Your task to perform on an android device: Open battery settings Image 0: 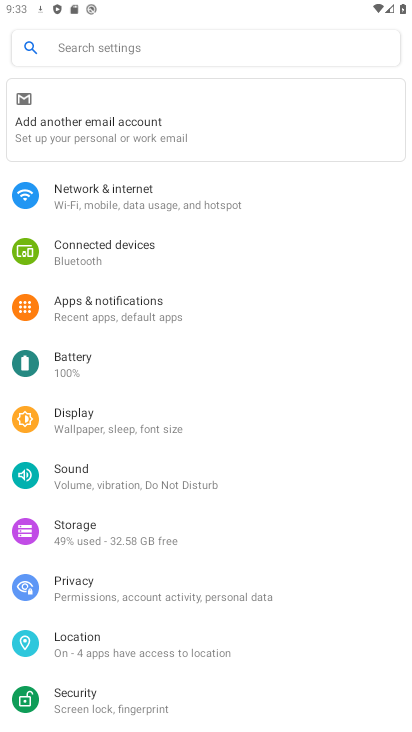
Step 0: press home button
Your task to perform on an android device: Open battery settings Image 1: 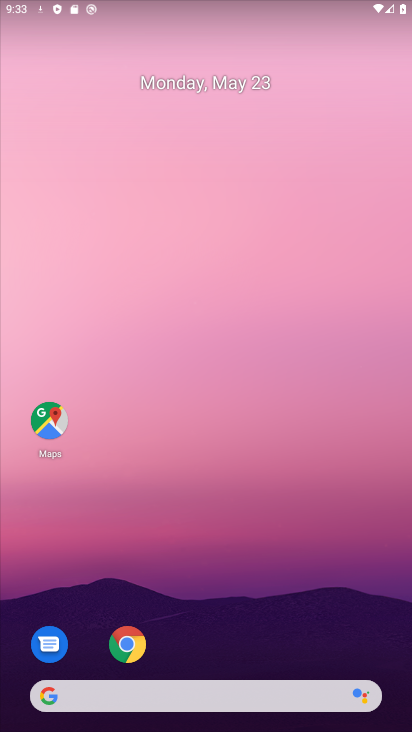
Step 1: drag from (265, 717) to (297, 308)
Your task to perform on an android device: Open battery settings Image 2: 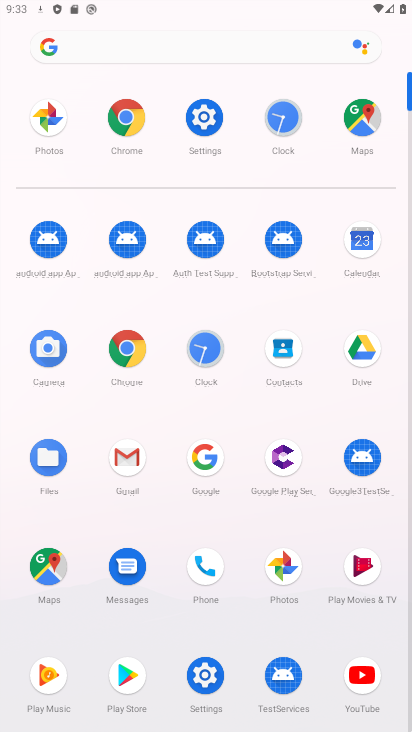
Step 2: click (218, 123)
Your task to perform on an android device: Open battery settings Image 3: 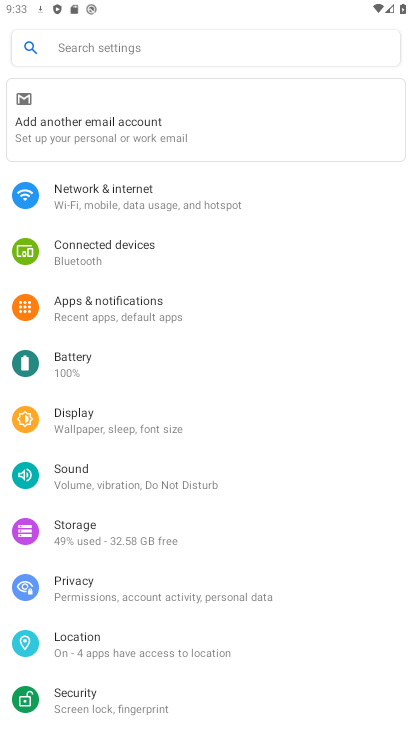
Step 3: click (100, 357)
Your task to perform on an android device: Open battery settings Image 4: 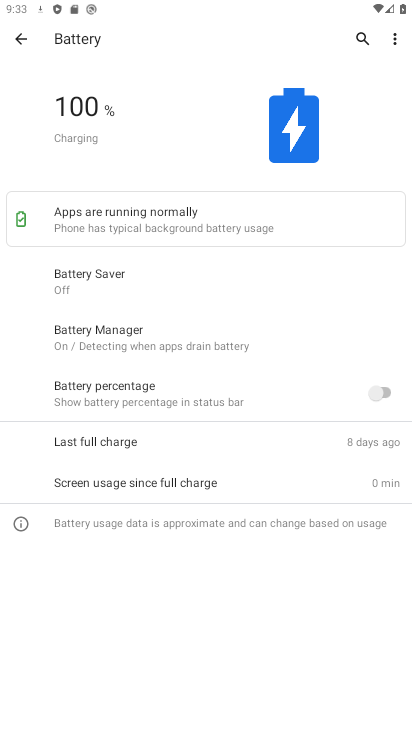
Step 4: task complete